Your task to perform on an android device: snooze an email in the gmail app Image 0: 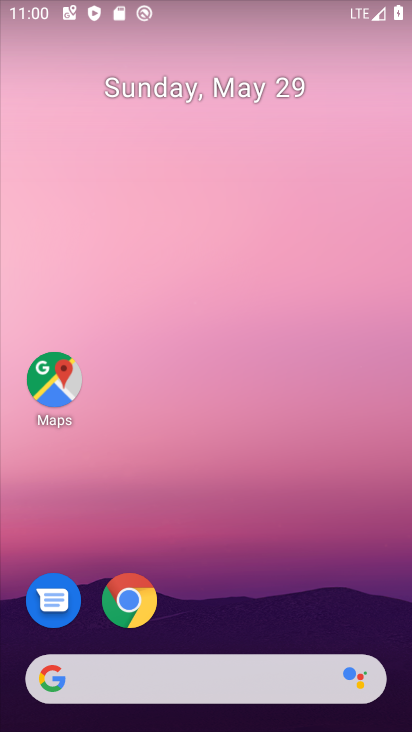
Step 0: drag from (273, 630) to (289, 77)
Your task to perform on an android device: snooze an email in the gmail app Image 1: 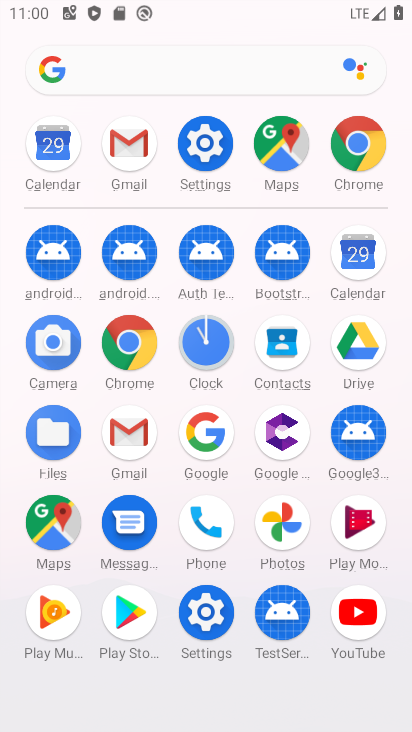
Step 1: click (146, 447)
Your task to perform on an android device: snooze an email in the gmail app Image 2: 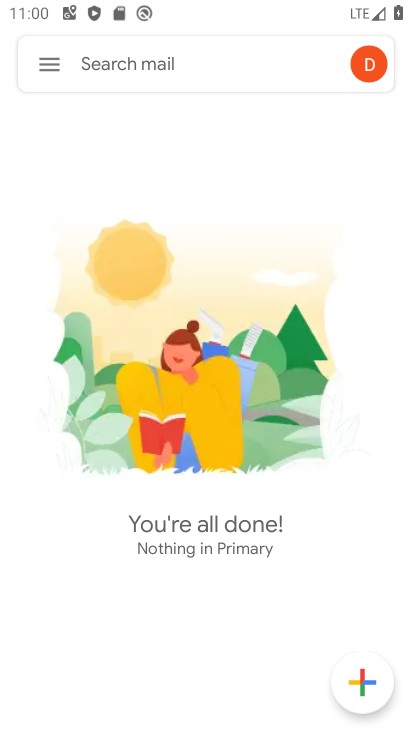
Step 2: click (43, 72)
Your task to perform on an android device: snooze an email in the gmail app Image 3: 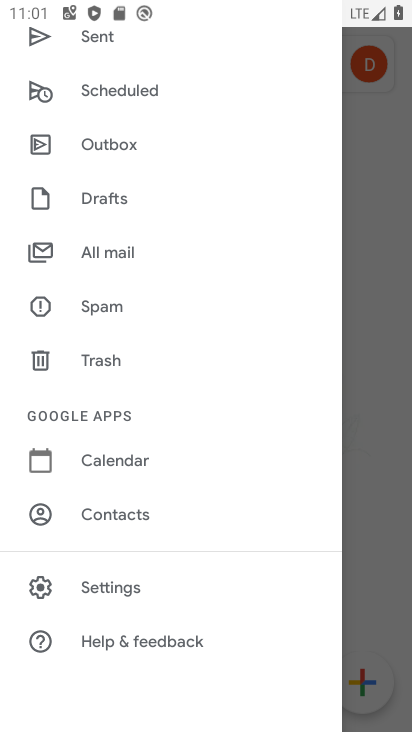
Step 3: task complete